Your task to perform on an android device: refresh tabs in the chrome app Image 0: 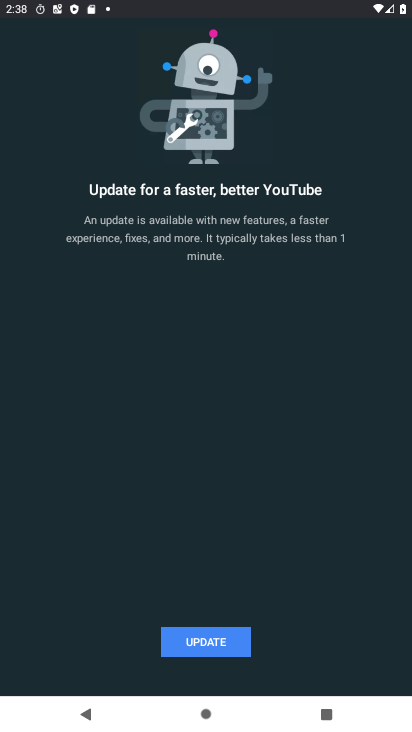
Step 0: press home button
Your task to perform on an android device: refresh tabs in the chrome app Image 1: 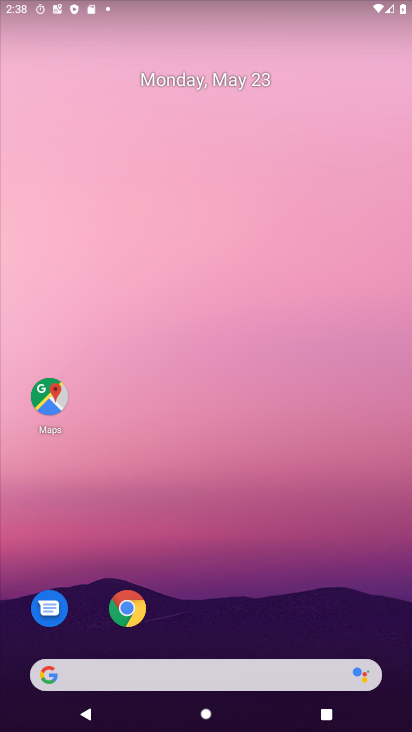
Step 1: click (133, 610)
Your task to perform on an android device: refresh tabs in the chrome app Image 2: 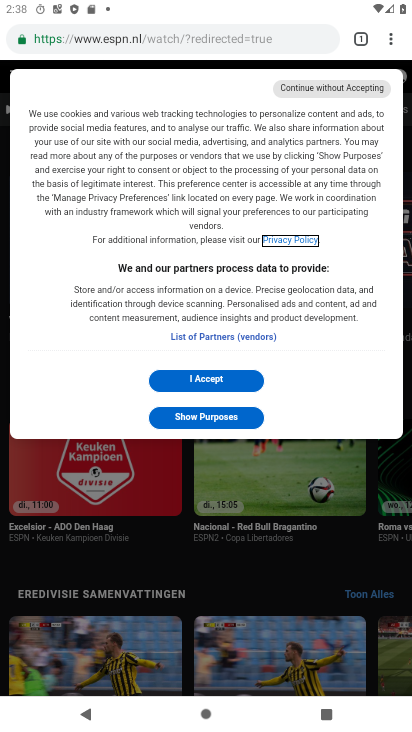
Step 2: click (393, 32)
Your task to perform on an android device: refresh tabs in the chrome app Image 3: 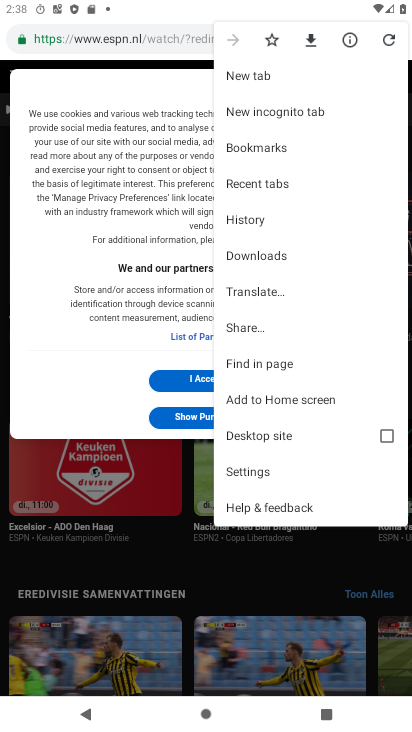
Step 3: click (394, 36)
Your task to perform on an android device: refresh tabs in the chrome app Image 4: 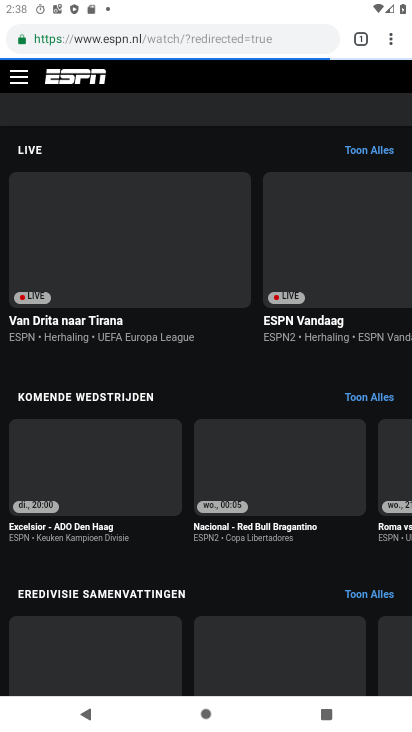
Step 4: task complete